Your task to perform on an android device: Go to sound settings Image 0: 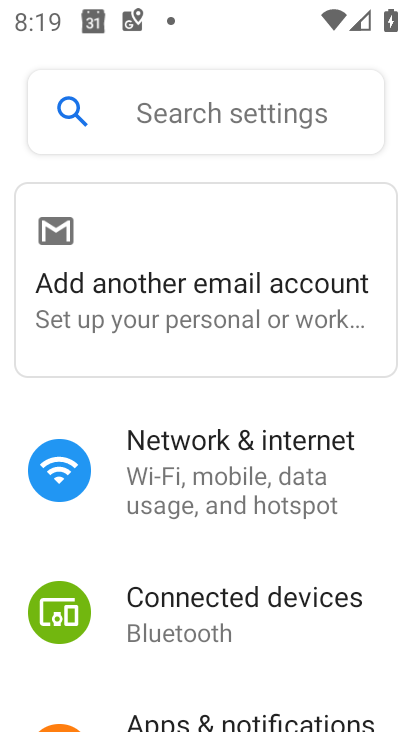
Step 0: press home button
Your task to perform on an android device: Go to sound settings Image 1: 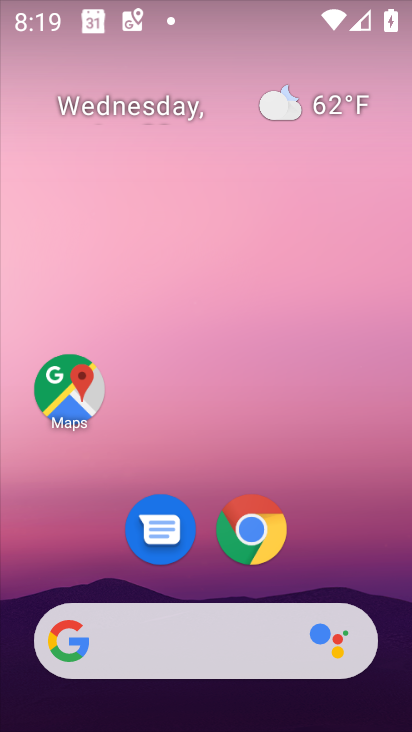
Step 1: drag from (183, 572) to (153, 253)
Your task to perform on an android device: Go to sound settings Image 2: 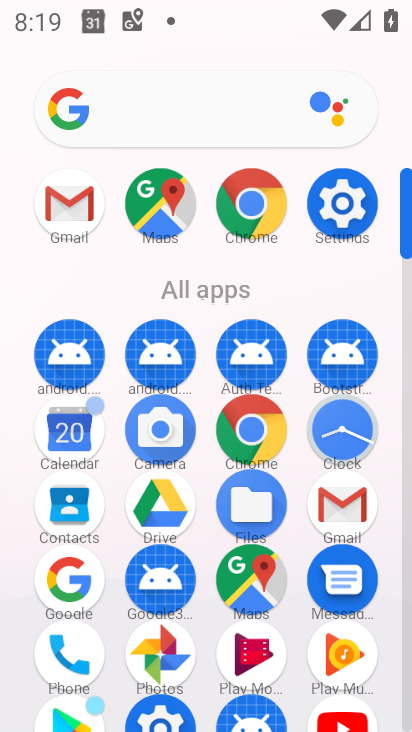
Step 2: click (343, 187)
Your task to perform on an android device: Go to sound settings Image 3: 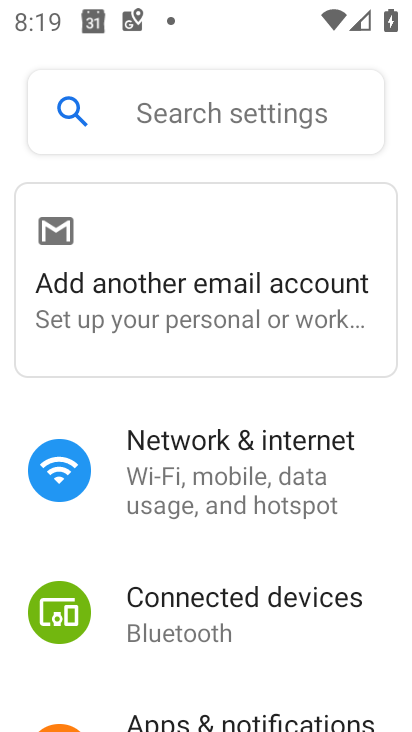
Step 3: drag from (197, 563) to (268, 182)
Your task to perform on an android device: Go to sound settings Image 4: 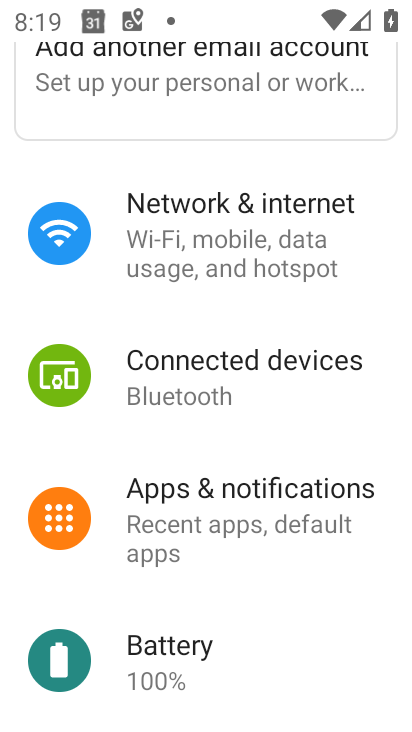
Step 4: drag from (254, 599) to (288, 275)
Your task to perform on an android device: Go to sound settings Image 5: 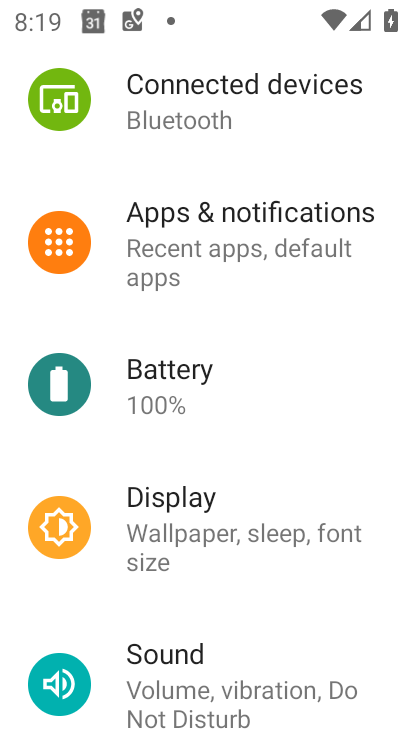
Step 5: click (181, 674)
Your task to perform on an android device: Go to sound settings Image 6: 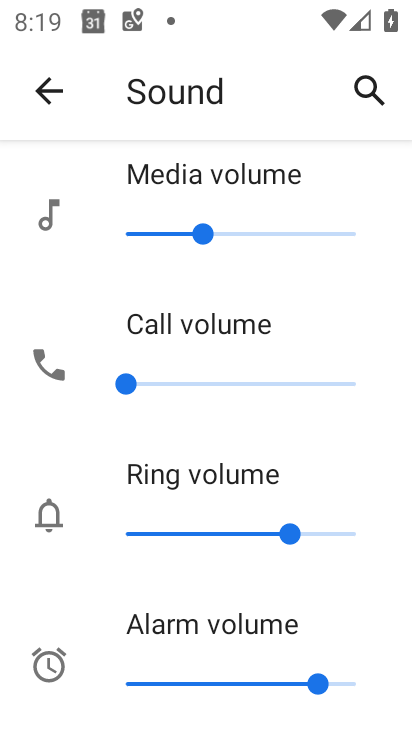
Step 6: task complete